Your task to perform on an android device: Open maps Image 0: 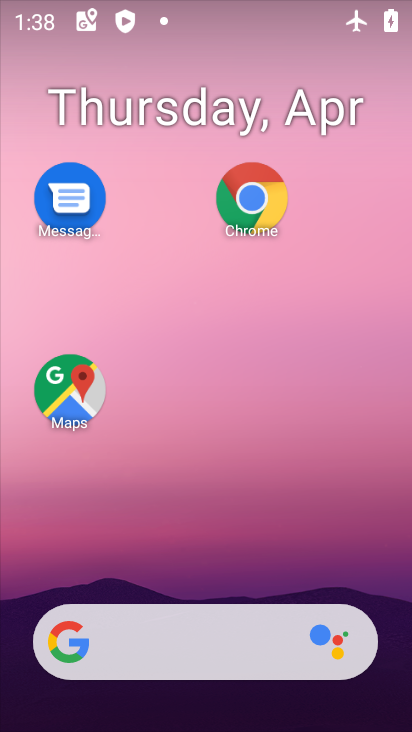
Step 0: drag from (200, 600) to (184, 0)
Your task to perform on an android device: Open maps Image 1: 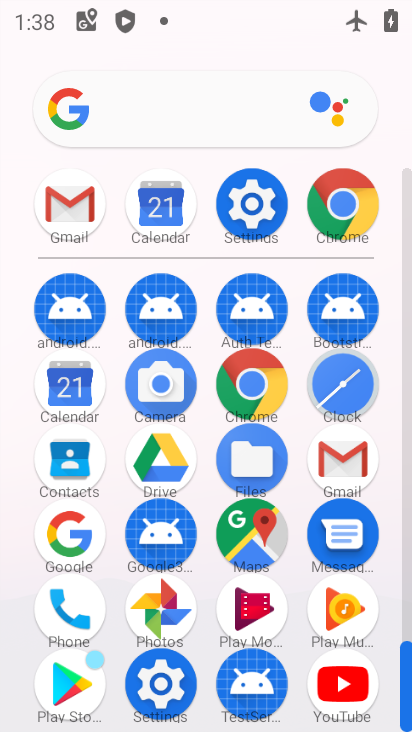
Step 1: click (261, 534)
Your task to perform on an android device: Open maps Image 2: 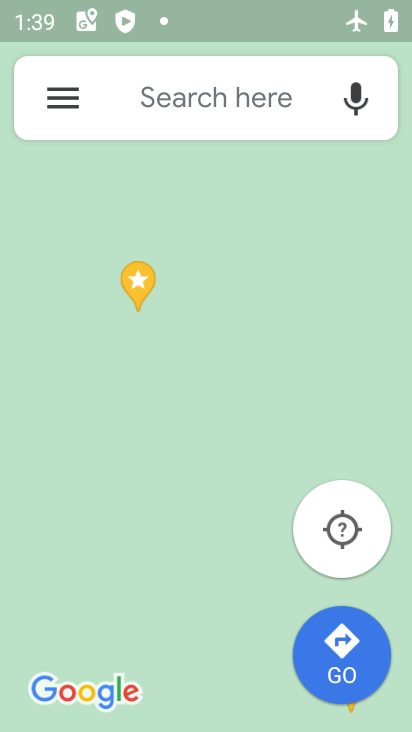
Step 2: task complete